Your task to perform on an android device: turn vacation reply on in the gmail app Image 0: 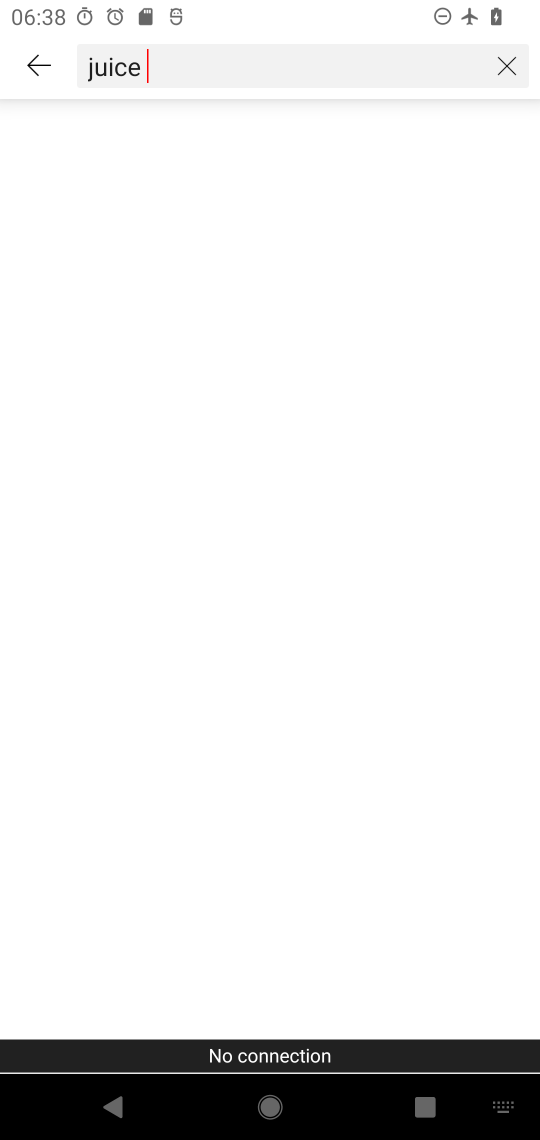
Step 0: press home button
Your task to perform on an android device: turn vacation reply on in the gmail app Image 1: 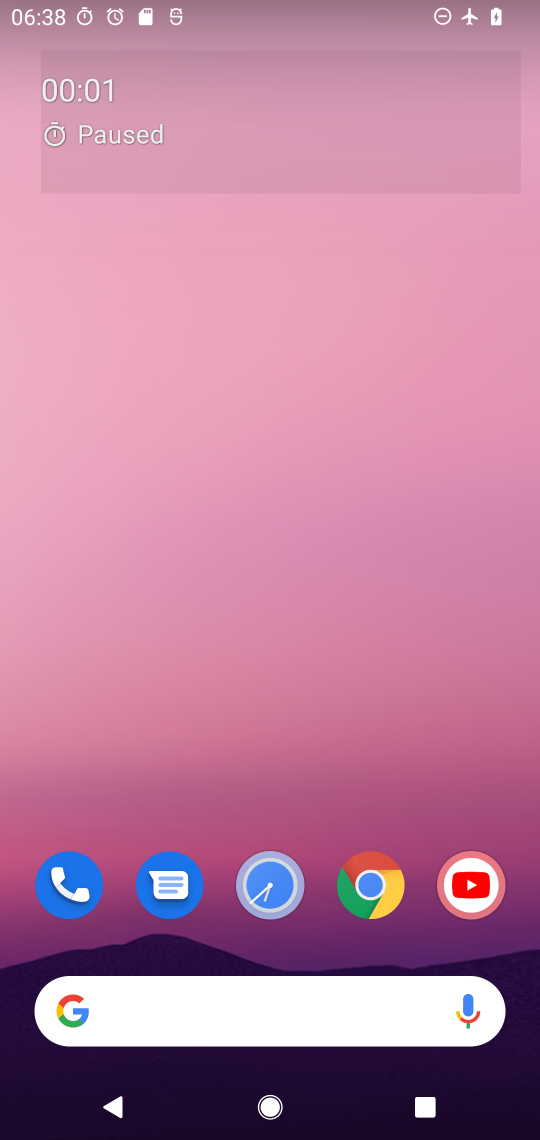
Step 1: drag from (251, 913) to (326, 106)
Your task to perform on an android device: turn vacation reply on in the gmail app Image 2: 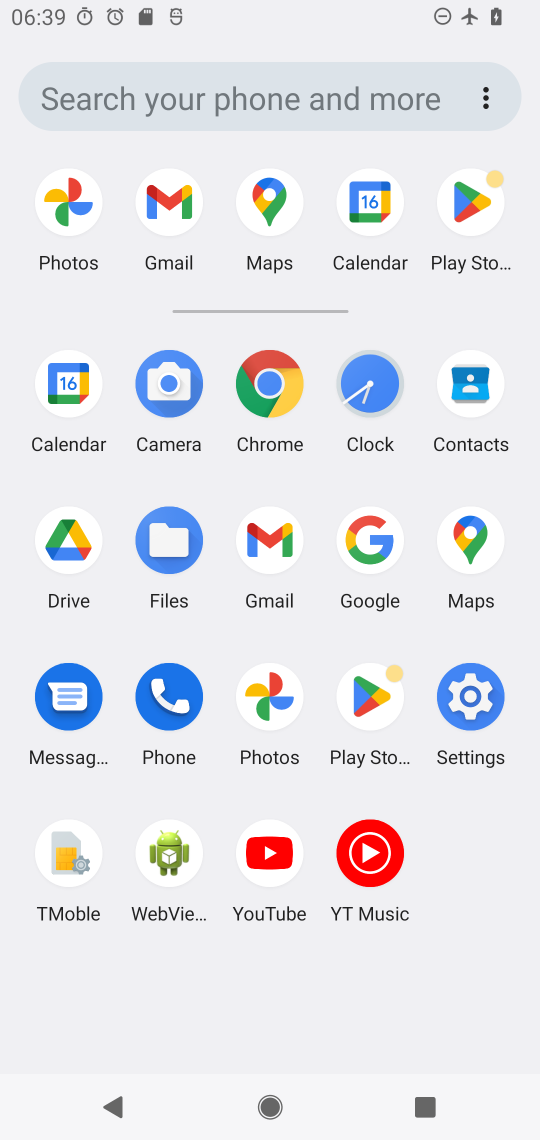
Step 2: click (271, 535)
Your task to perform on an android device: turn vacation reply on in the gmail app Image 3: 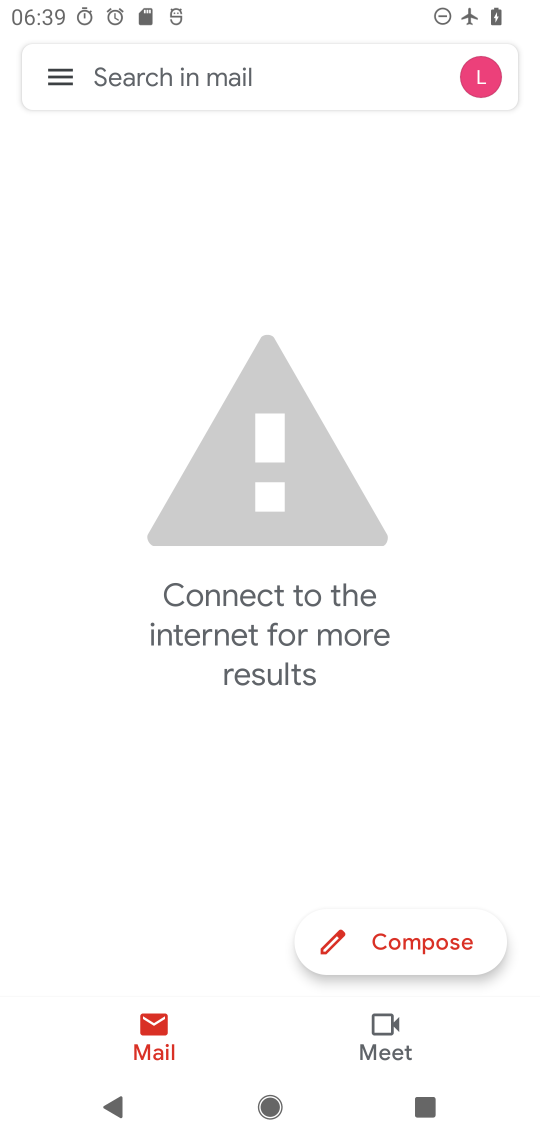
Step 3: click (58, 81)
Your task to perform on an android device: turn vacation reply on in the gmail app Image 4: 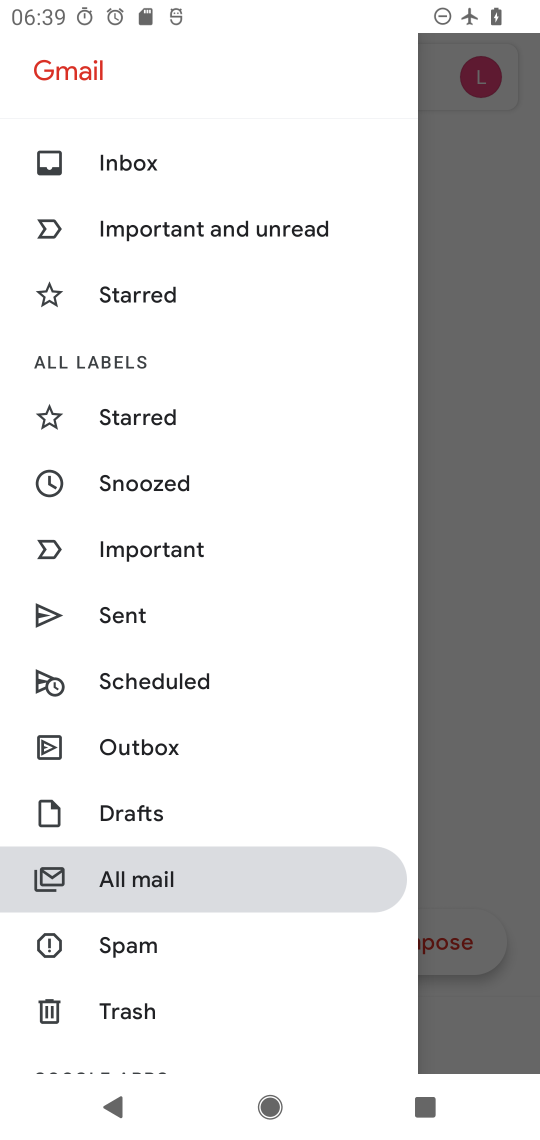
Step 4: drag from (210, 954) to (252, 378)
Your task to perform on an android device: turn vacation reply on in the gmail app Image 5: 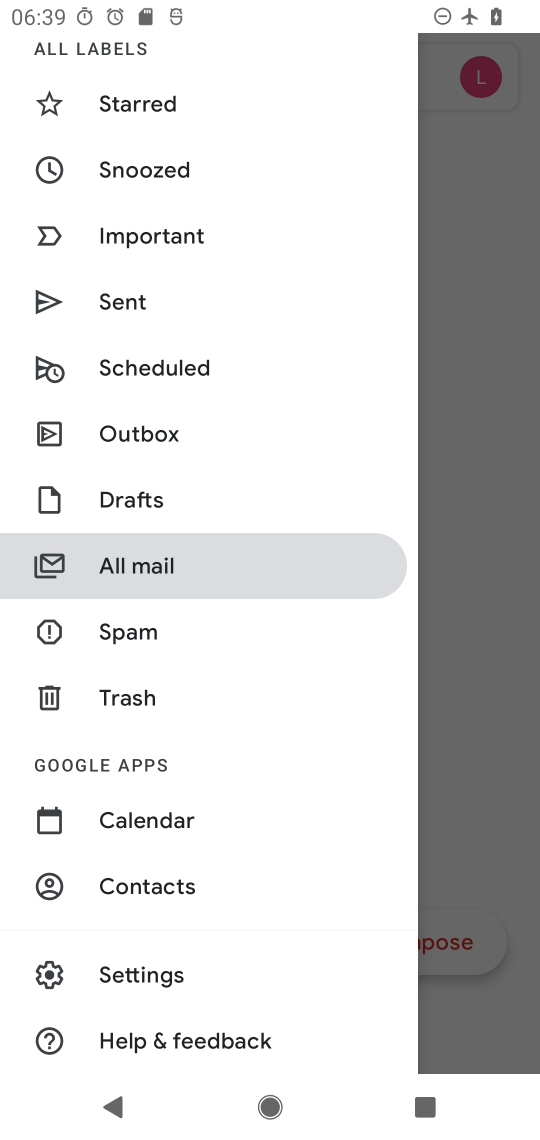
Step 5: click (150, 957)
Your task to perform on an android device: turn vacation reply on in the gmail app Image 6: 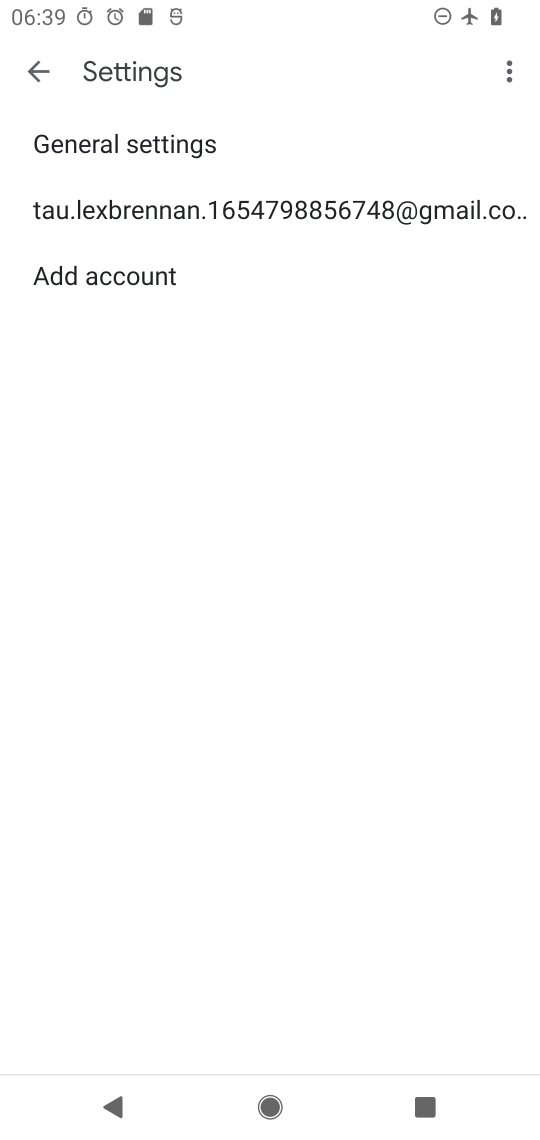
Step 6: click (148, 204)
Your task to perform on an android device: turn vacation reply on in the gmail app Image 7: 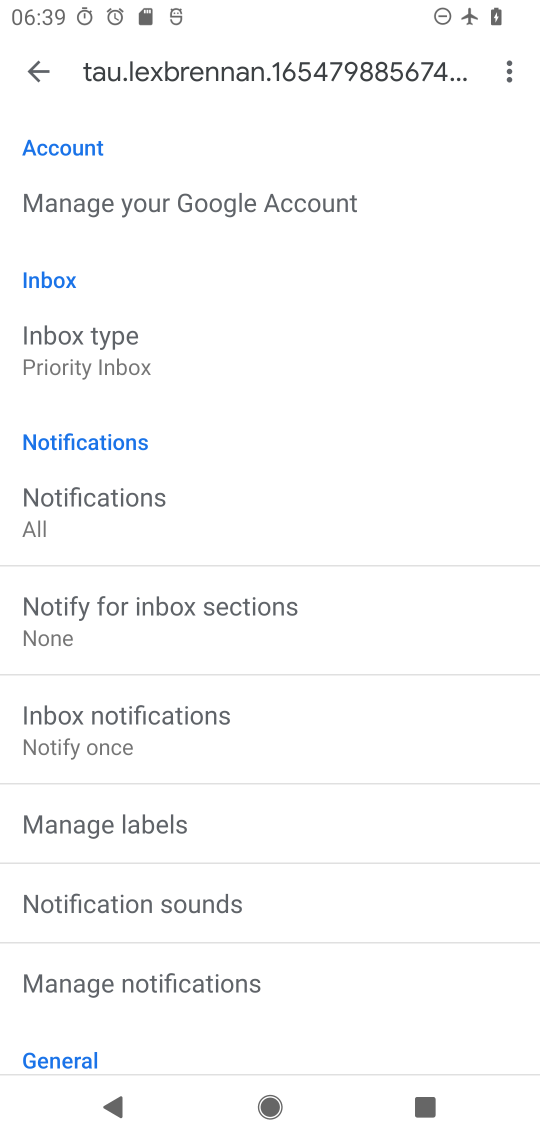
Step 7: drag from (269, 974) to (318, 370)
Your task to perform on an android device: turn vacation reply on in the gmail app Image 8: 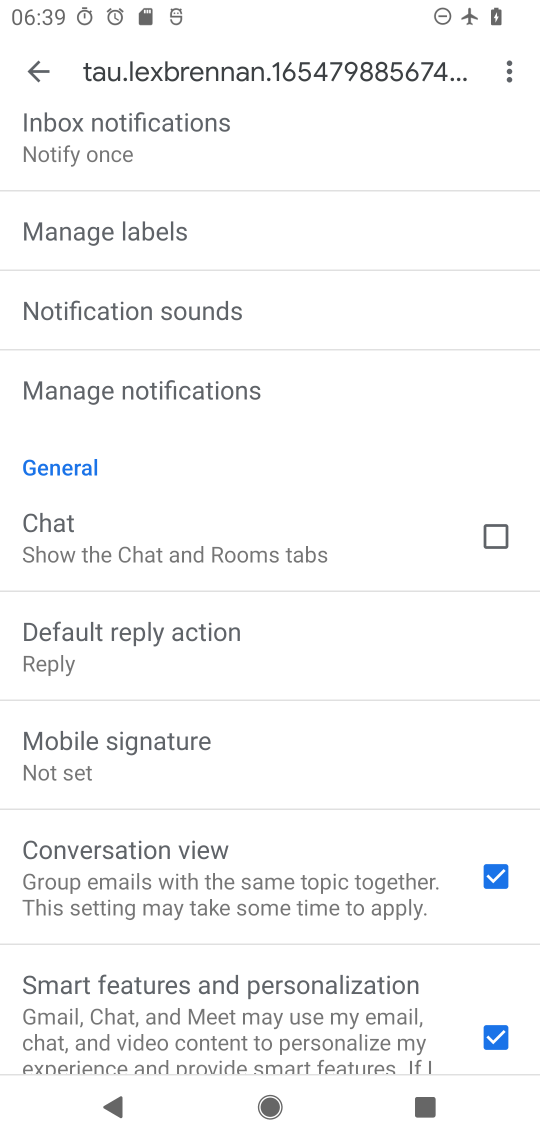
Step 8: drag from (216, 861) to (339, 152)
Your task to perform on an android device: turn vacation reply on in the gmail app Image 9: 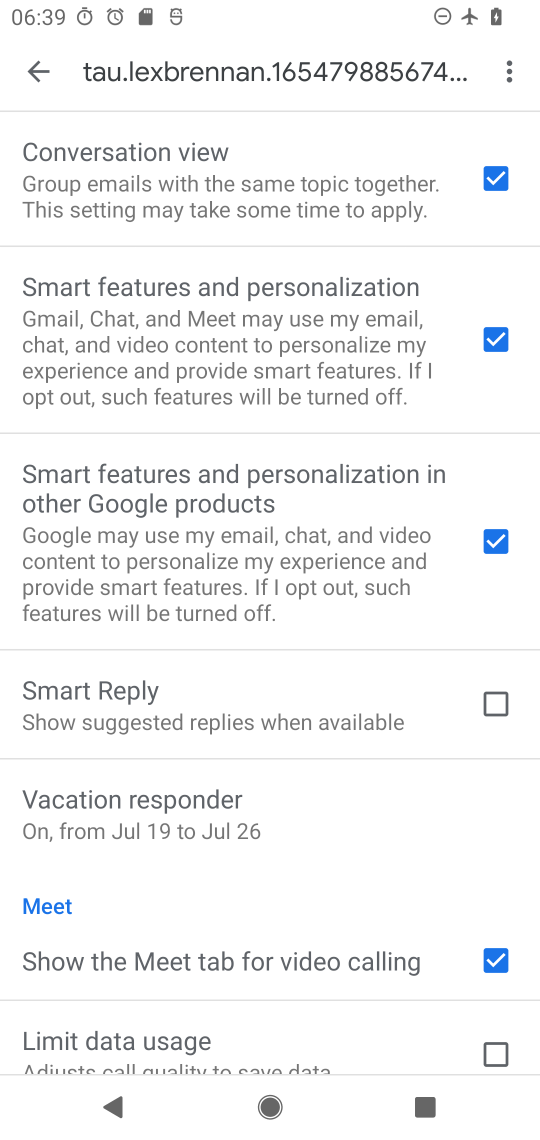
Step 9: click (201, 793)
Your task to perform on an android device: turn vacation reply on in the gmail app Image 10: 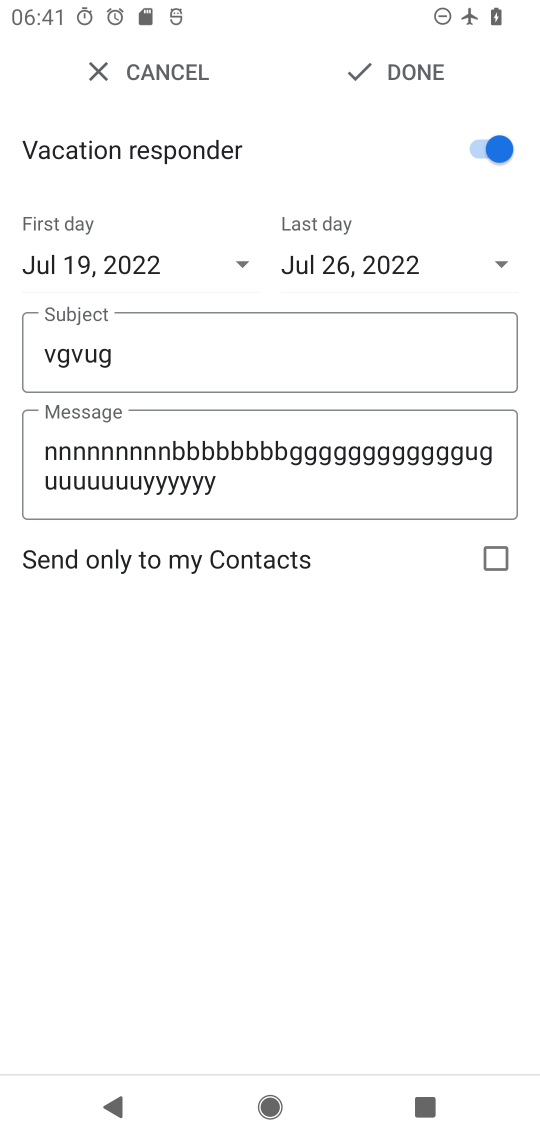
Step 10: task complete